Your task to perform on an android device: Search for vegetarian restaurants on Maps Image 0: 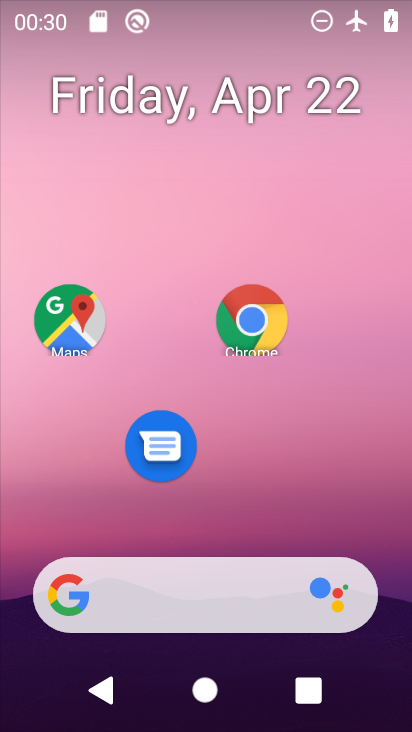
Step 0: drag from (228, 417) to (248, 163)
Your task to perform on an android device: Search for vegetarian restaurants on Maps Image 1: 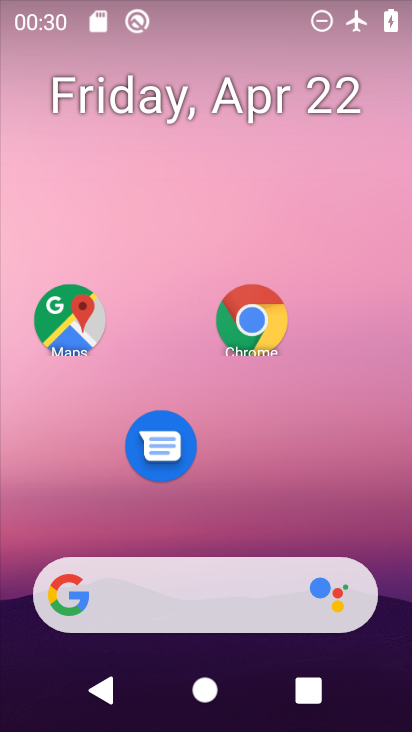
Step 1: drag from (217, 474) to (192, 135)
Your task to perform on an android device: Search for vegetarian restaurants on Maps Image 2: 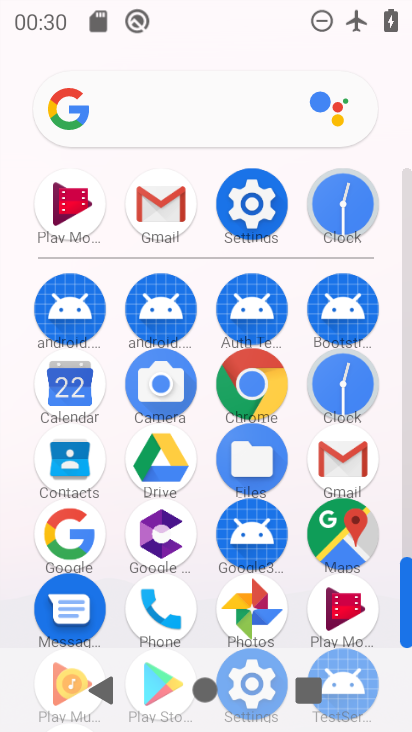
Step 2: drag from (208, 634) to (198, 228)
Your task to perform on an android device: Search for vegetarian restaurants on Maps Image 3: 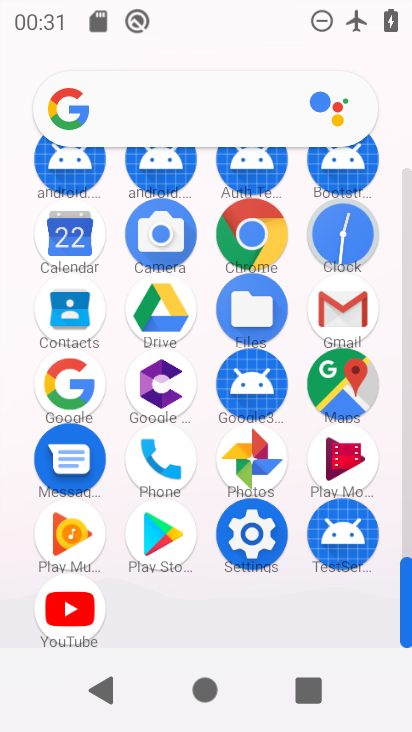
Step 3: click (328, 390)
Your task to perform on an android device: Search for vegetarian restaurants on Maps Image 4: 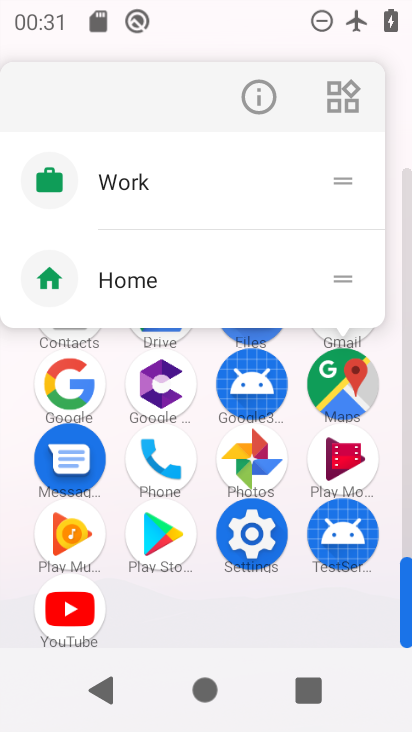
Step 4: click (261, 90)
Your task to perform on an android device: Search for vegetarian restaurants on Maps Image 5: 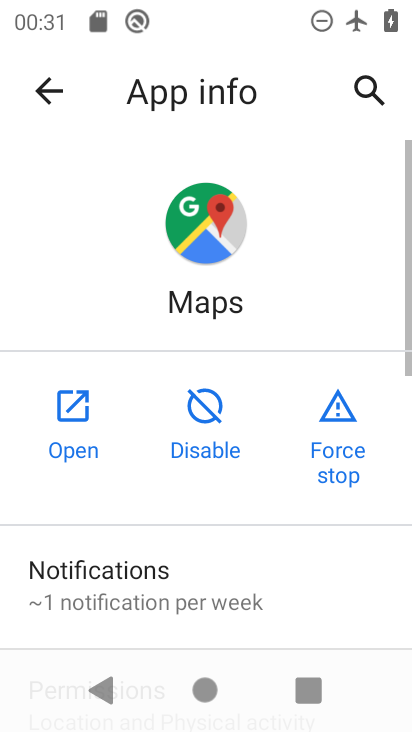
Step 5: click (66, 387)
Your task to perform on an android device: Search for vegetarian restaurants on Maps Image 6: 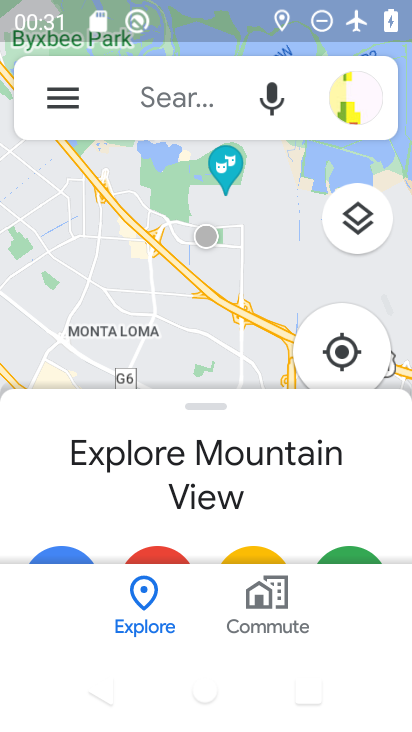
Step 6: click (172, 76)
Your task to perform on an android device: Search for vegetarian restaurants on Maps Image 7: 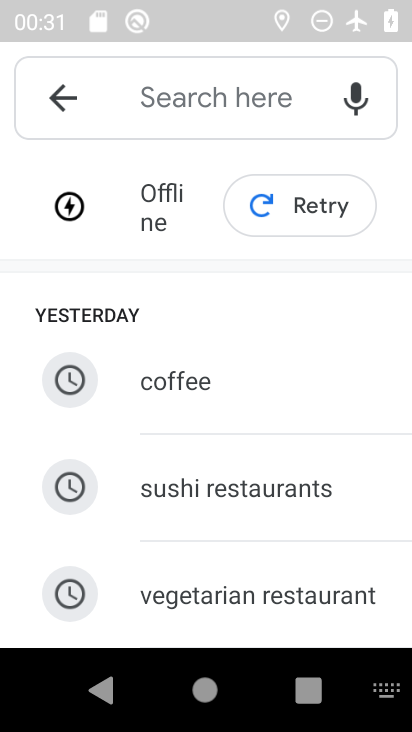
Step 7: type "vegetar"
Your task to perform on an android device: Search for vegetarian restaurants on Maps Image 8: 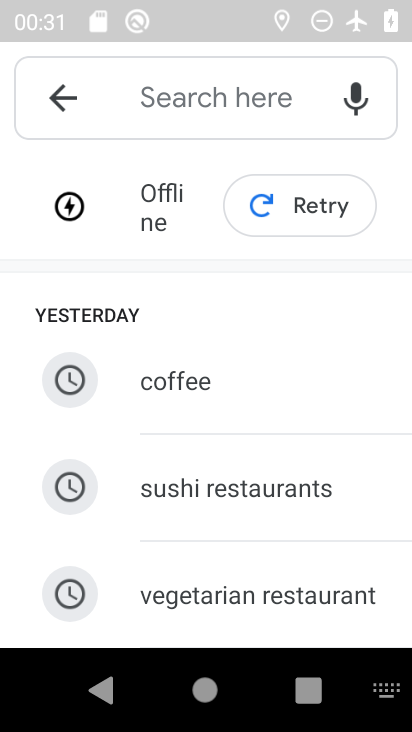
Step 8: click (248, 574)
Your task to perform on an android device: Search for vegetarian restaurants on Maps Image 9: 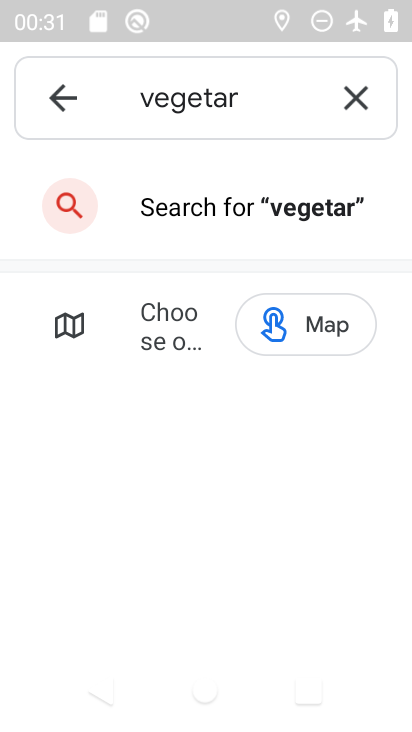
Step 9: click (366, 84)
Your task to perform on an android device: Search for vegetarian restaurants on Maps Image 10: 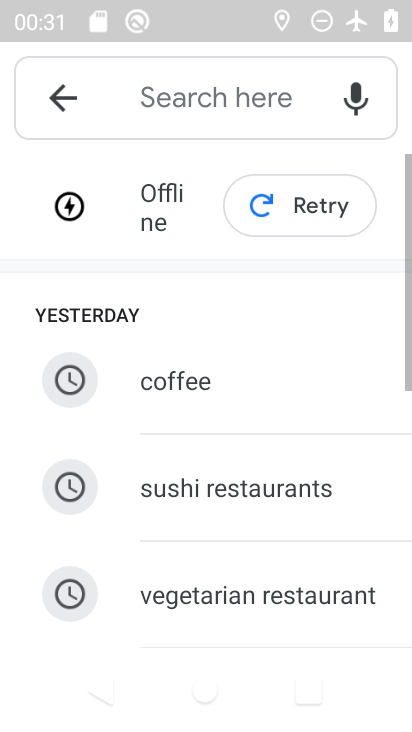
Step 10: click (241, 99)
Your task to perform on an android device: Search for vegetarian restaurants on Maps Image 11: 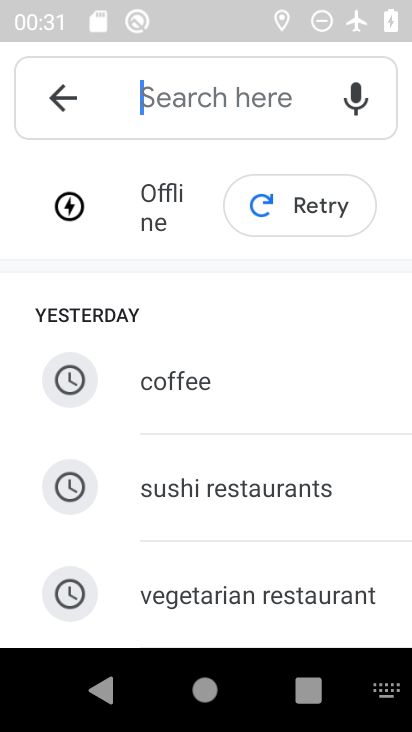
Step 11: click (240, 580)
Your task to perform on an android device: Search for vegetarian restaurants on Maps Image 12: 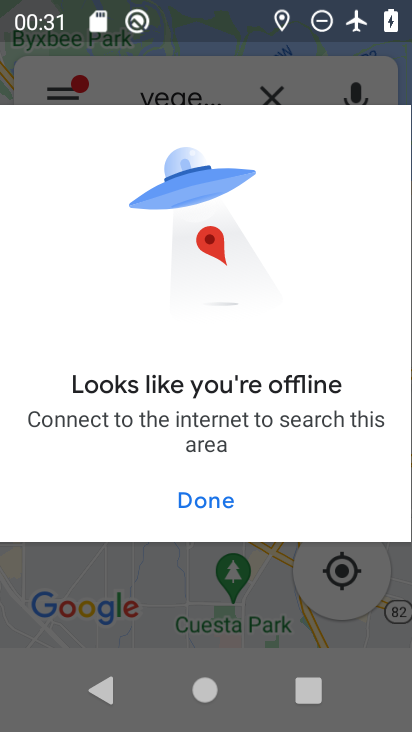
Step 12: click (206, 496)
Your task to perform on an android device: Search for vegetarian restaurants on Maps Image 13: 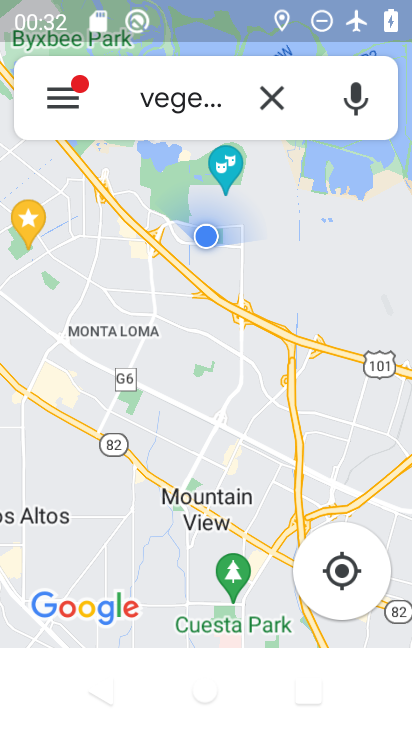
Step 13: click (269, 96)
Your task to perform on an android device: Search for vegetarian restaurants on Maps Image 14: 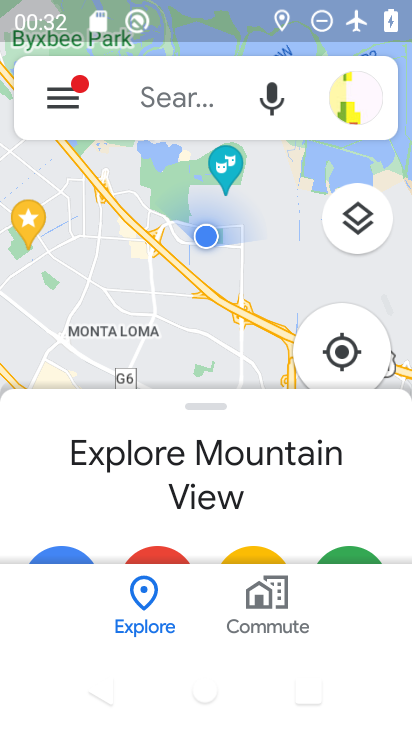
Step 14: click (162, 108)
Your task to perform on an android device: Search for vegetarian restaurants on Maps Image 15: 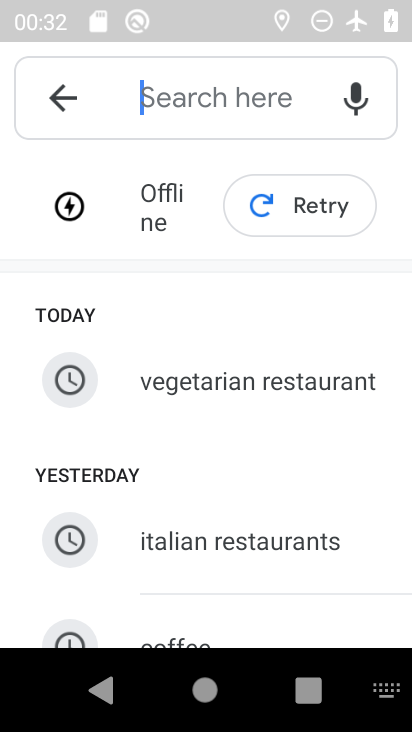
Step 15: click (212, 386)
Your task to perform on an android device: Search for vegetarian restaurants on Maps Image 16: 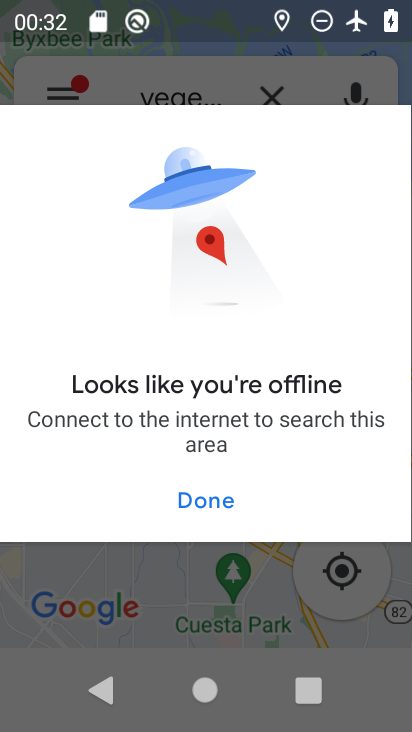
Step 16: click (195, 515)
Your task to perform on an android device: Search for vegetarian restaurants on Maps Image 17: 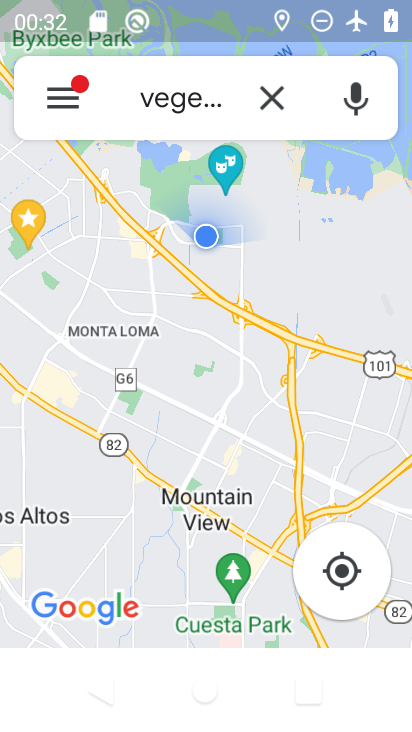
Step 17: task complete